Your task to perform on an android device: Open settings on Google Maps Image 0: 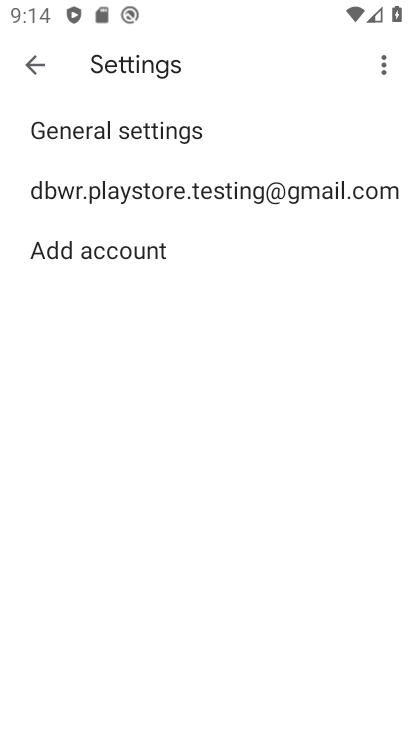
Step 0: press home button
Your task to perform on an android device: Open settings on Google Maps Image 1: 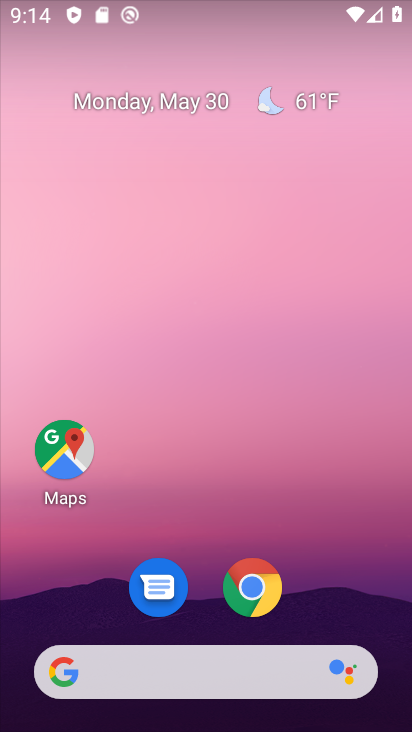
Step 1: drag from (262, 655) to (251, 0)
Your task to perform on an android device: Open settings on Google Maps Image 2: 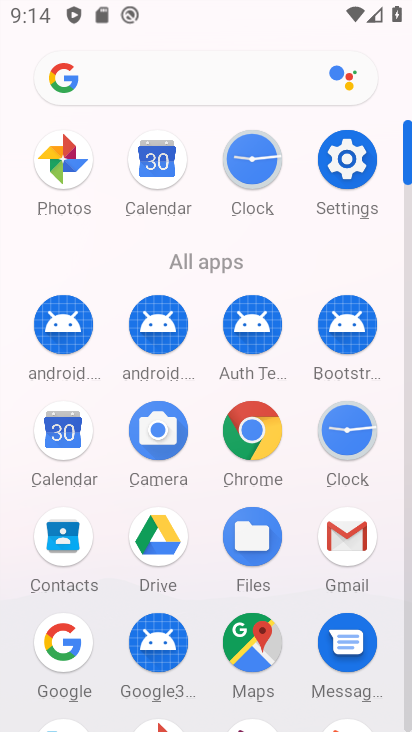
Step 2: click (244, 653)
Your task to perform on an android device: Open settings on Google Maps Image 3: 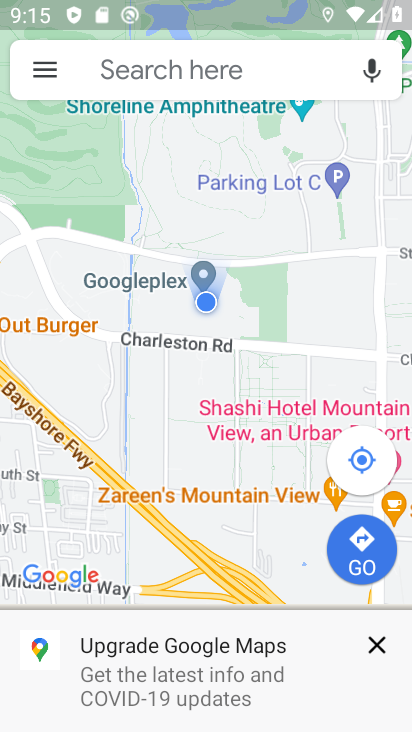
Step 3: click (36, 74)
Your task to perform on an android device: Open settings on Google Maps Image 4: 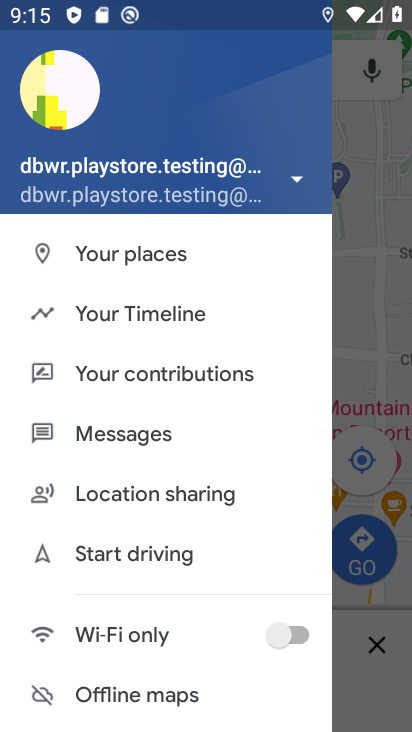
Step 4: drag from (127, 677) to (112, 85)
Your task to perform on an android device: Open settings on Google Maps Image 5: 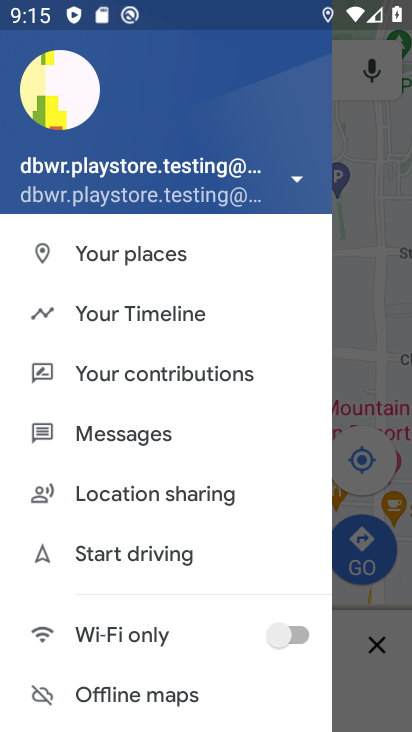
Step 5: drag from (119, 629) to (109, 153)
Your task to perform on an android device: Open settings on Google Maps Image 6: 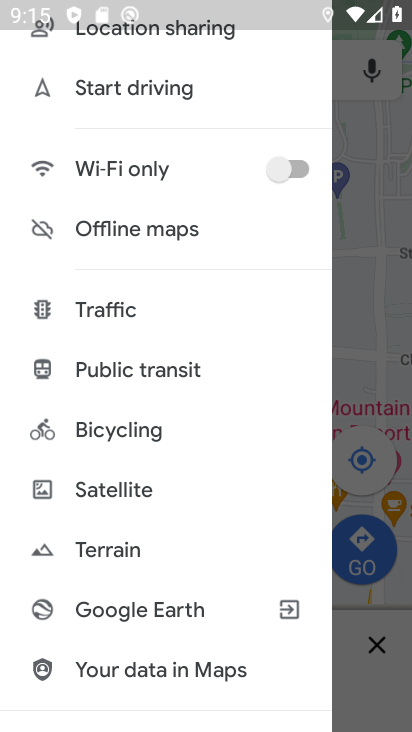
Step 6: drag from (160, 606) to (159, 116)
Your task to perform on an android device: Open settings on Google Maps Image 7: 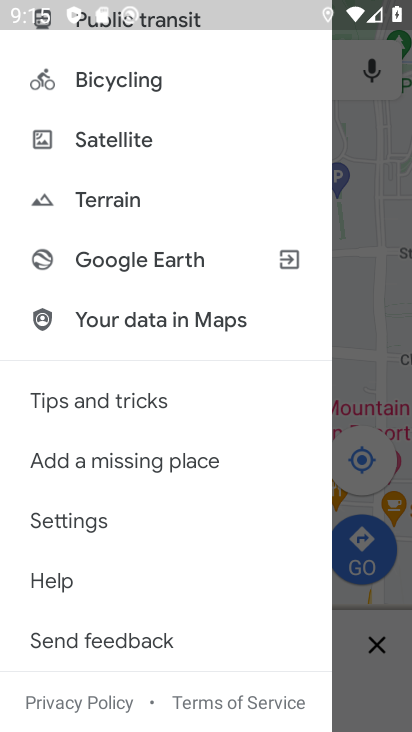
Step 7: click (70, 524)
Your task to perform on an android device: Open settings on Google Maps Image 8: 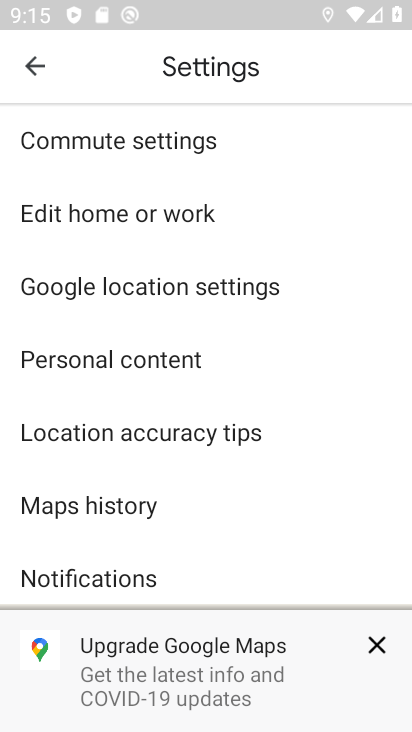
Step 8: task complete